Your task to perform on an android device: What's the weather today? Image 0: 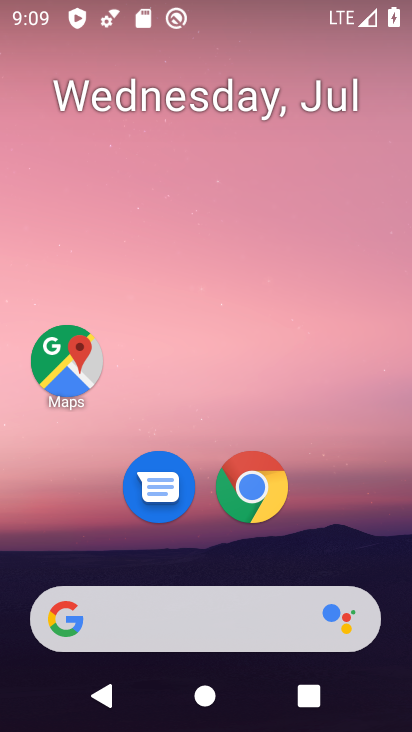
Step 0: click (190, 608)
Your task to perform on an android device: What's the weather today? Image 1: 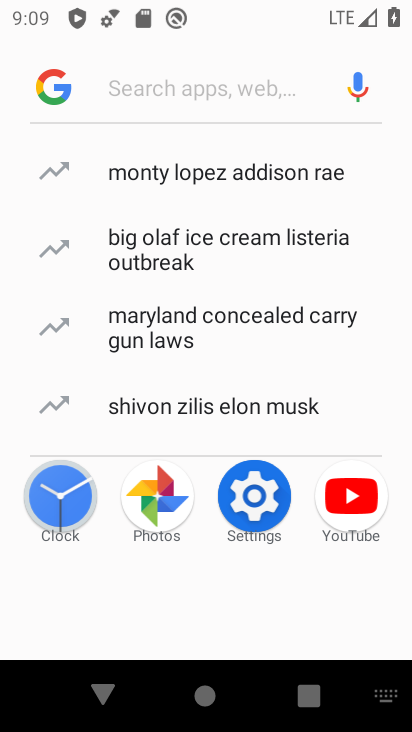
Step 1: type "wether"
Your task to perform on an android device: What's the weather today? Image 2: 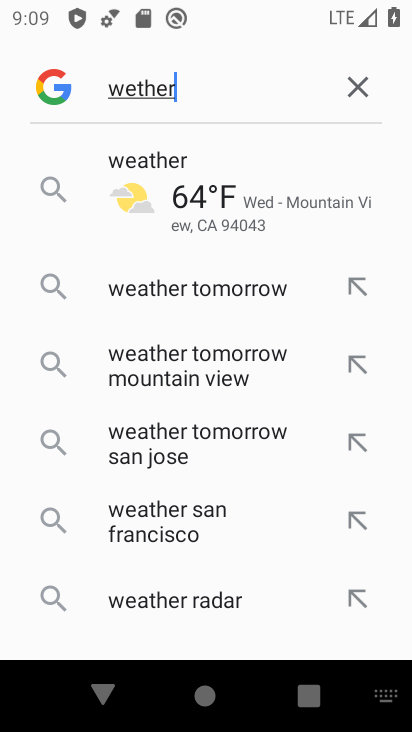
Step 2: click (152, 180)
Your task to perform on an android device: What's the weather today? Image 3: 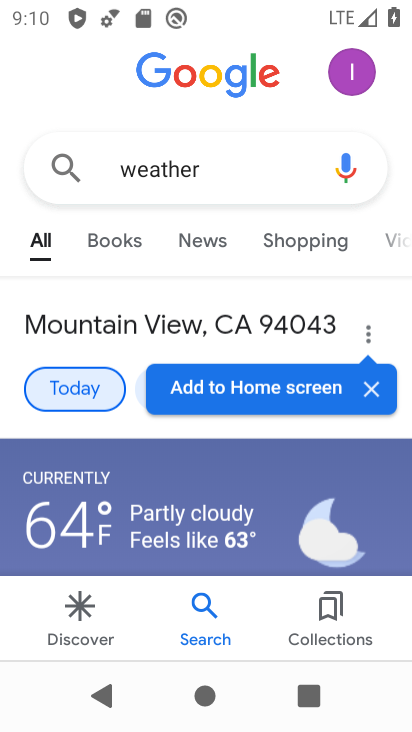
Step 3: click (83, 393)
Your task to perform on an android device: What's the weather today? Image 4: 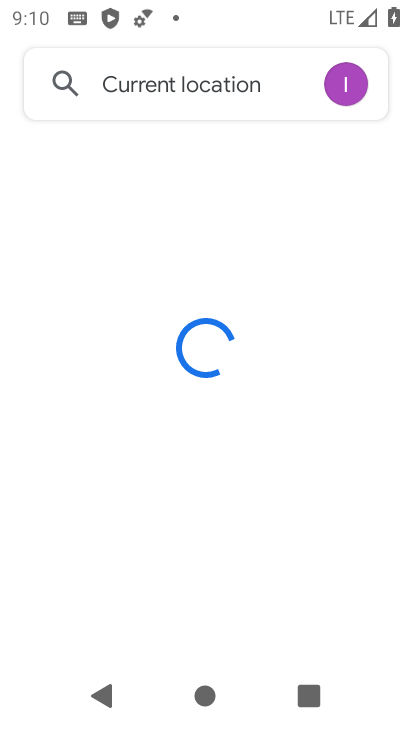
Step 4: click (373, 395)
Your task to perform on an android device: What's the weather today? Image 5: 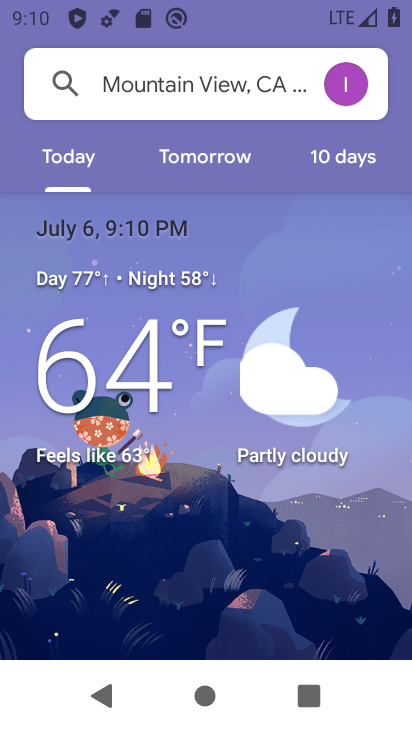
Step 5: task complete